Your task to perform on an android device: check storage Image 0: 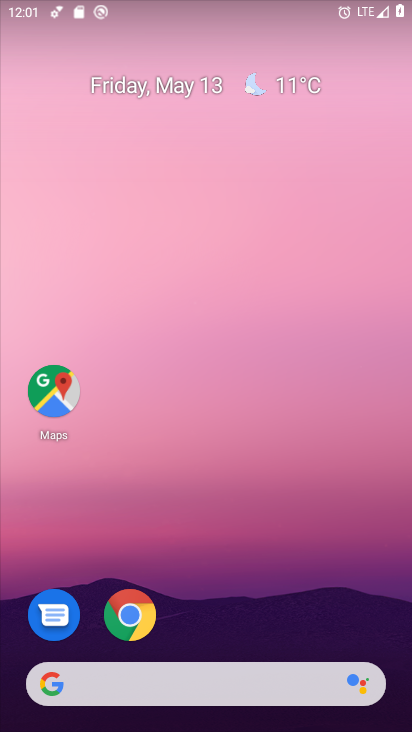
Step 0: drag from (257, 540) to (319, 28)
Your task to perform on an android device: check storage Image 1: 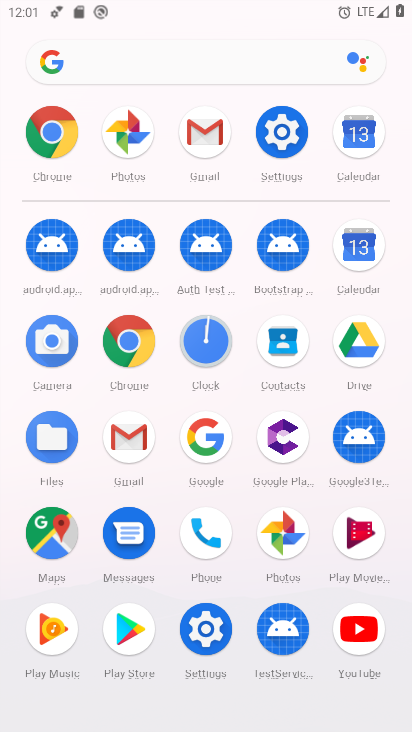
Step 1: click (294, 122)
Your task to perform on an android device: check storage Image 2: 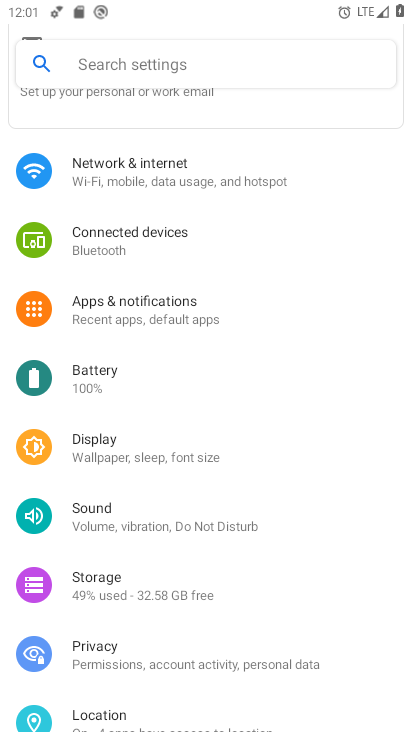
Step 2: click (157, 577)
Your task to perform on an android device: check storage Image 3: 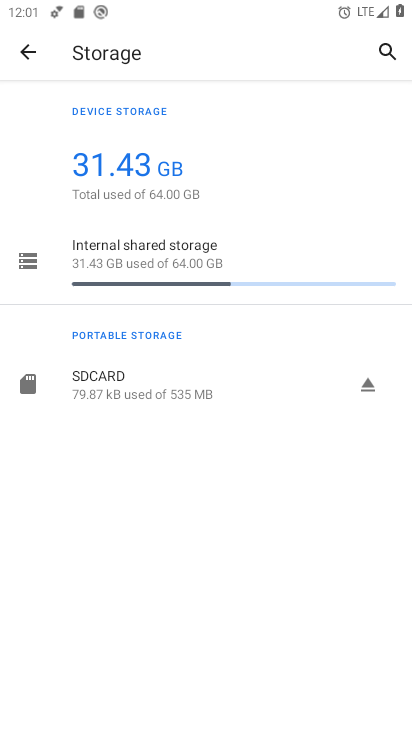
Step 3: task complete